Your task to perform on an android device: open app "Spotify: Music and Podcasts" Image 0: 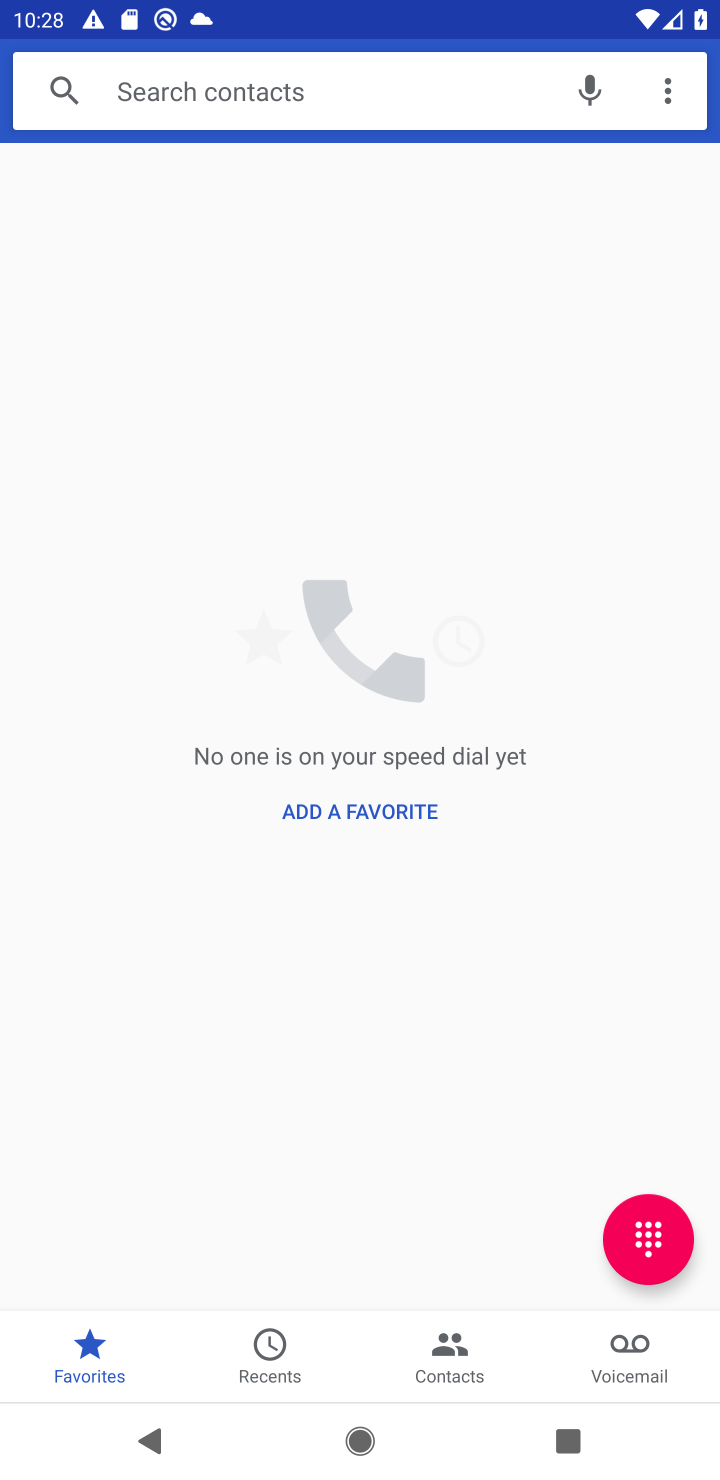
Step 0: press home button
Your task to perform on an android device: open app "Spotify: Music and Podcasts" Image 1: 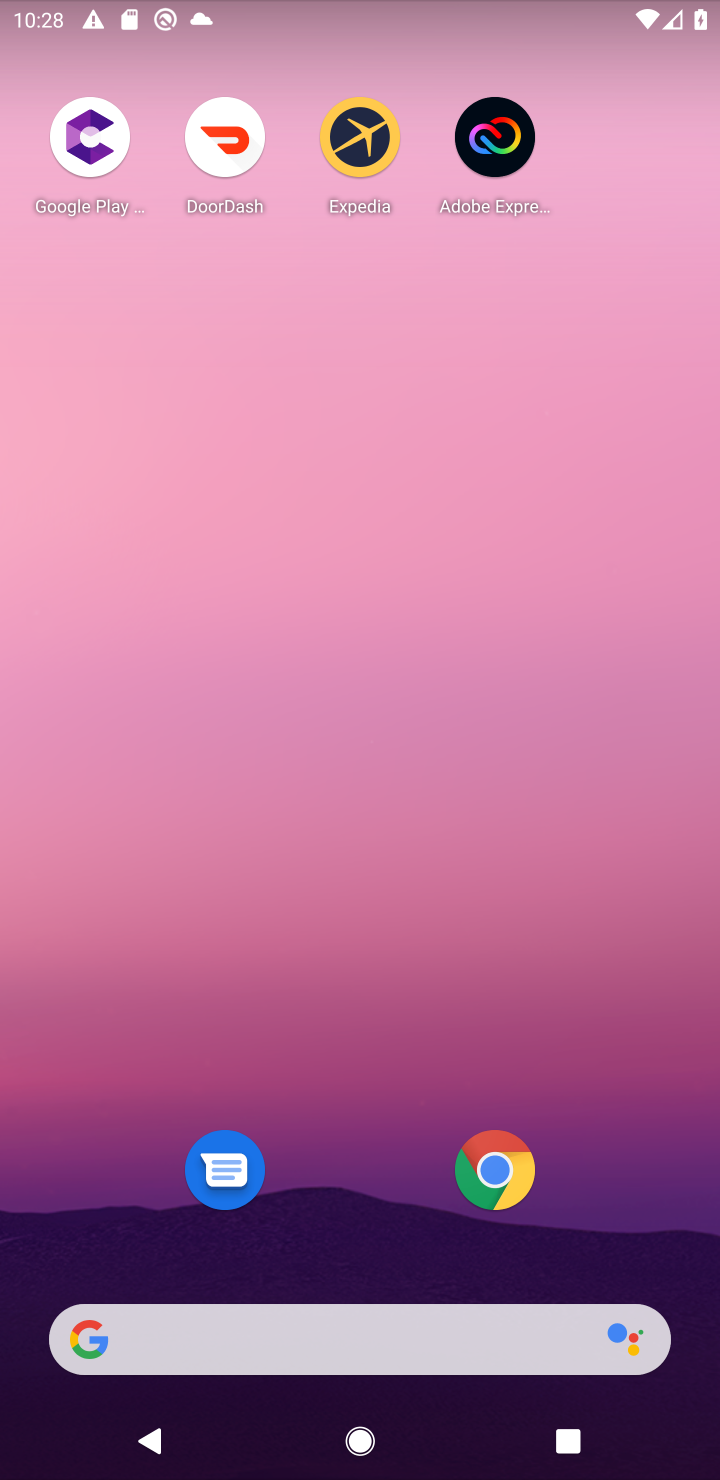
Step 1: drag from (336, 1217) to (339, 439)
Your task to perform on an android device: open app "Spotify: Music and Podcasts" Image 2: 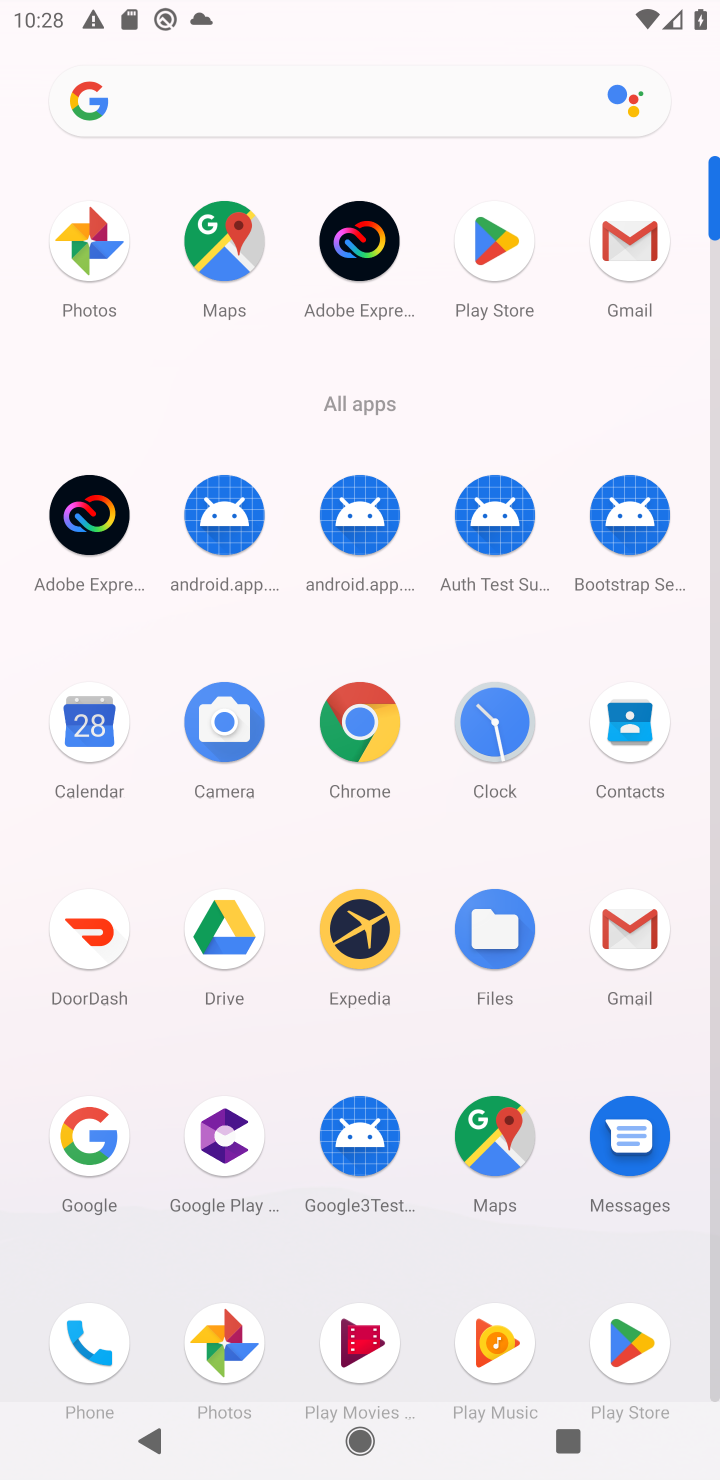
Step 2: click (627, 1336)
Your task to perform on an android device: open app "Spotify: Music and Podcasts" Image 3: 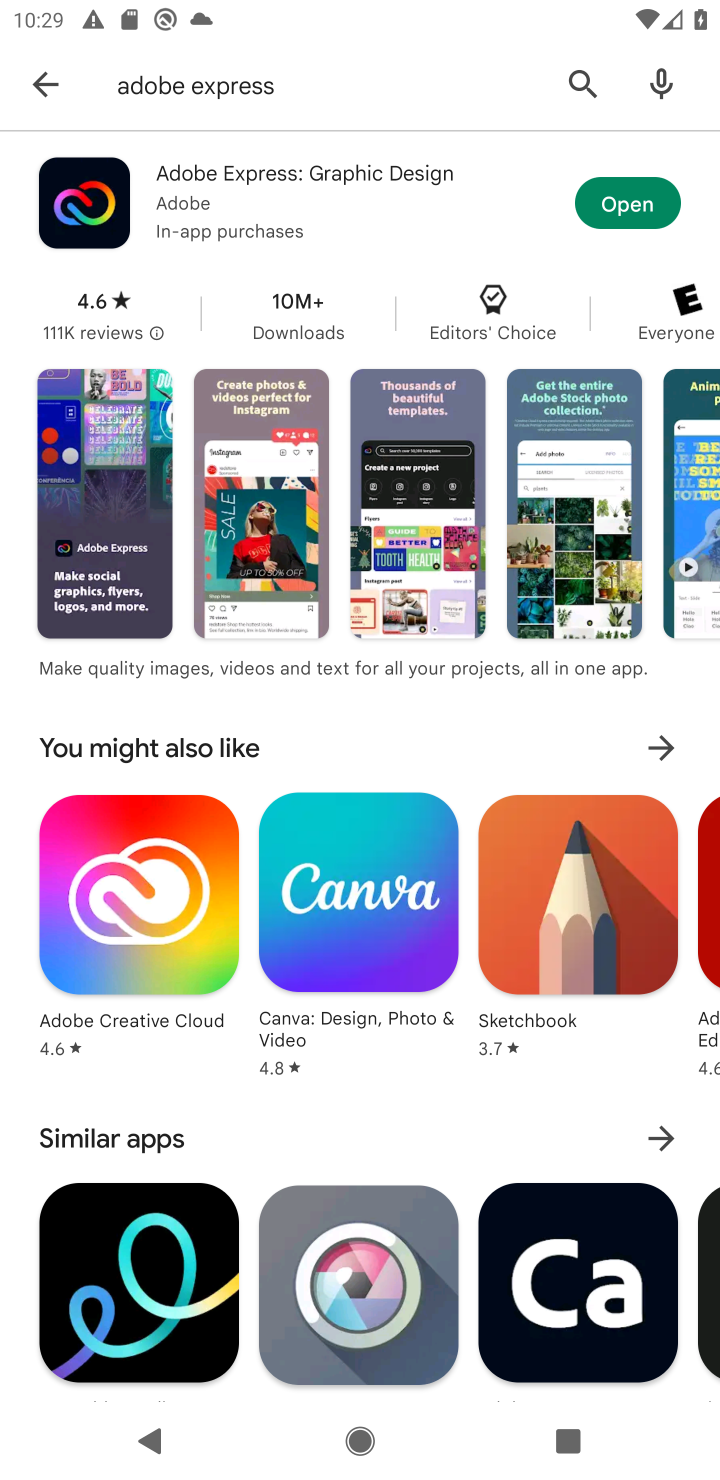
Step 3: click (218, 95)
Your task to perform on an android device: open app "Spotify: Music and Podcasts" Image 4: 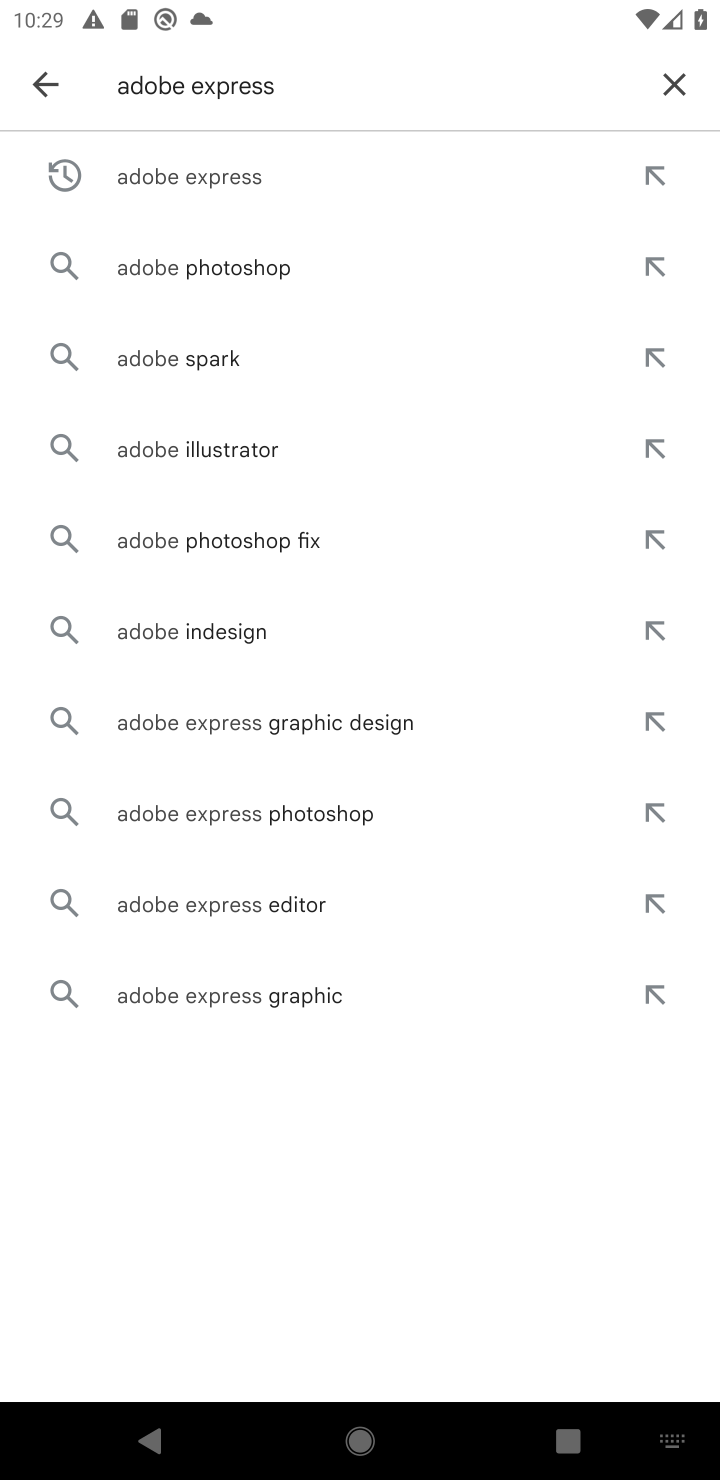
Step 4: click (676, 76)
Your task to perform on an android device: open app "Spotify: Music and Podcasts" Image 5: 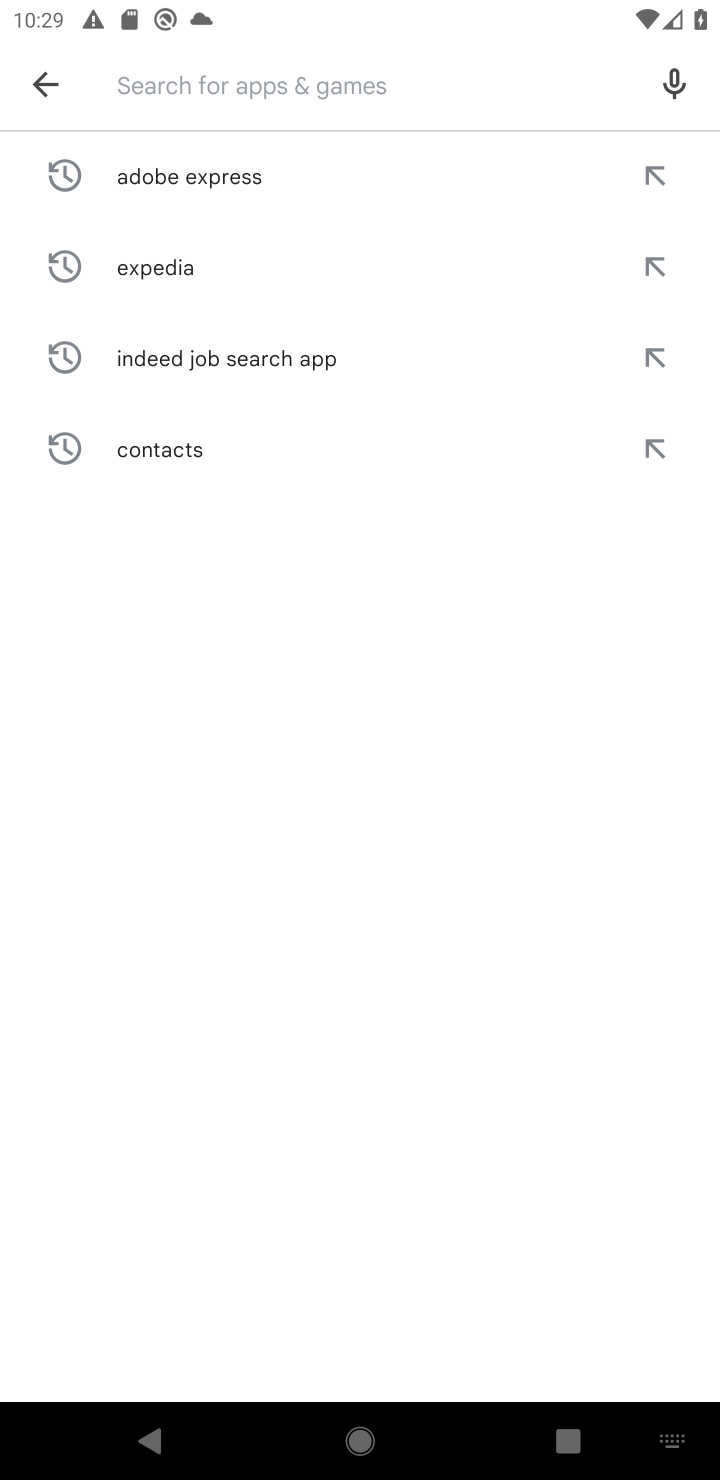
Step 5: type "spotify"
Your task to perform on an android device: open app "Spotify: Music and Podcasts" Image 6: 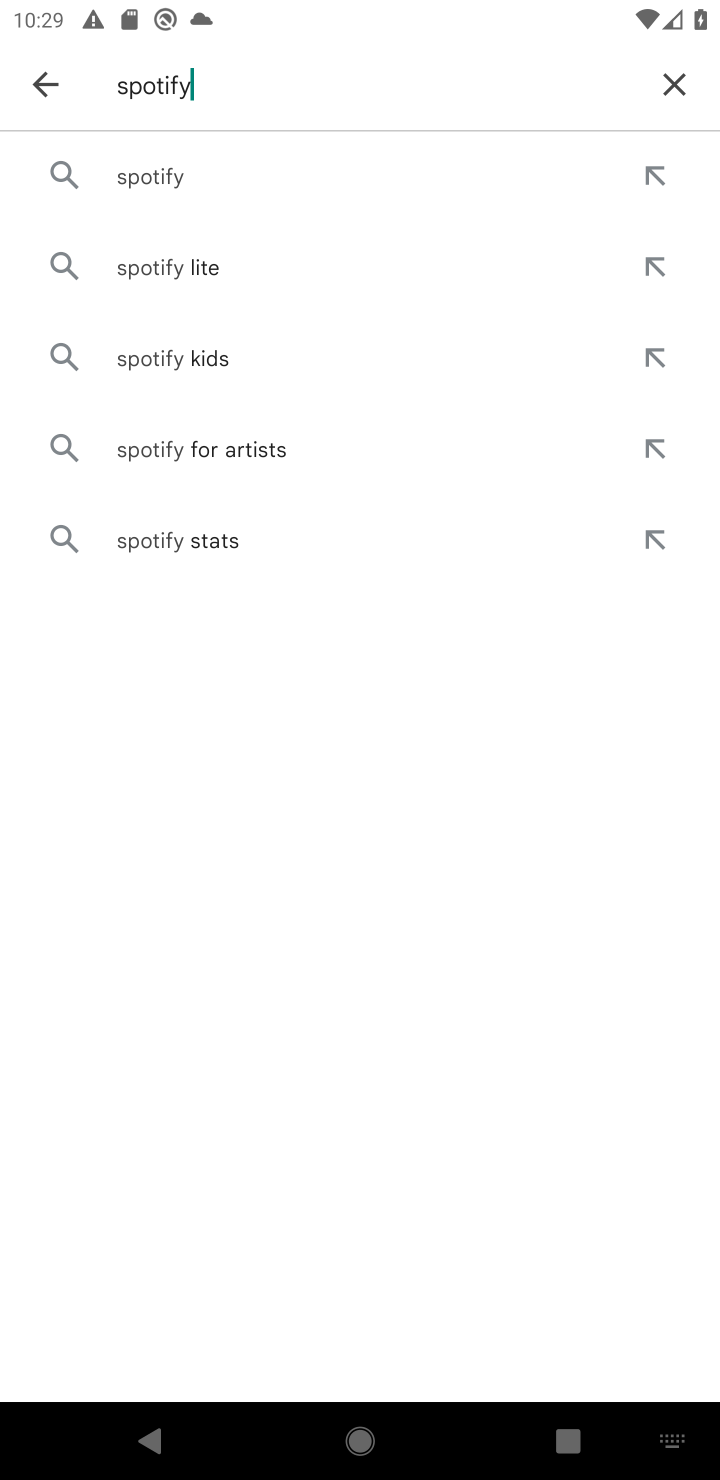
Step 6: click (131, 200)
Your task to perform on an android device: open app "Spotify: Music and Podcasts" Image 7: 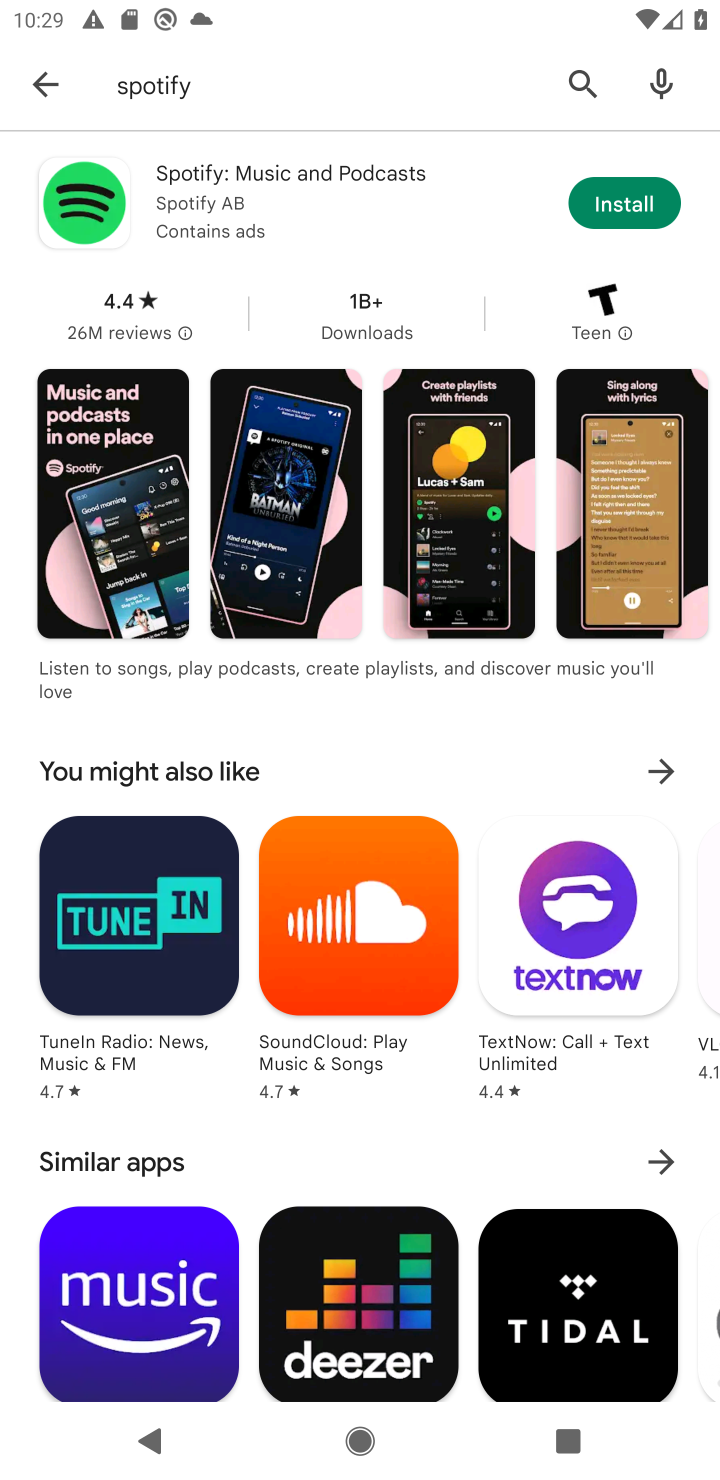
Step 7: task complete